Your task to perform on an android device: see tabs open on other devices in the chrome app Image 0: 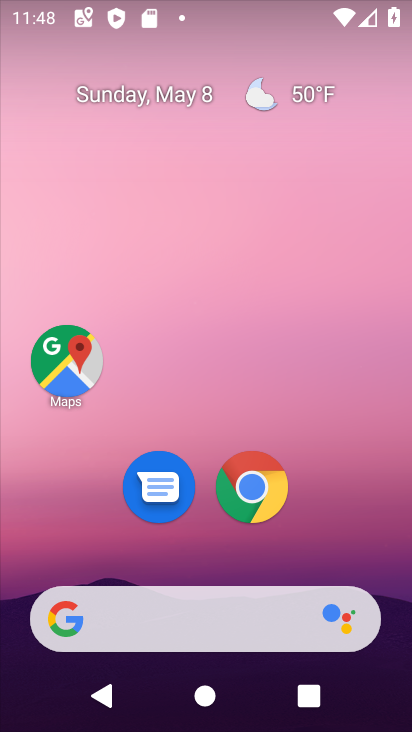
Step 0: click (263, 488)
Your task to perform on an android device: see tabs open on other devices in the chrome app Image 1: 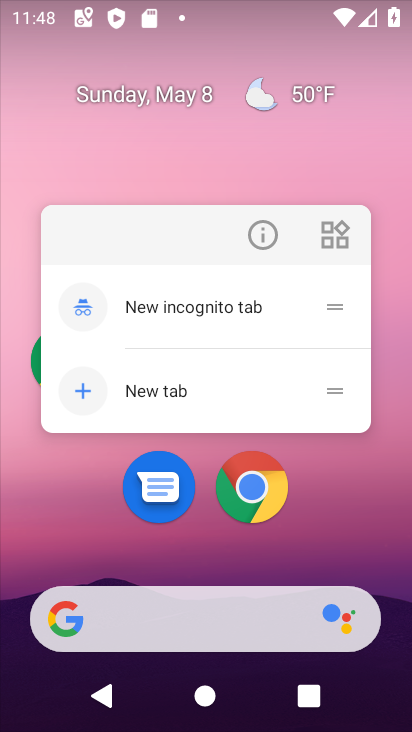
Step 1: click (271, 482)
Your task to perform on an android device: see tabs open on other devices in the chrome app Image 2: 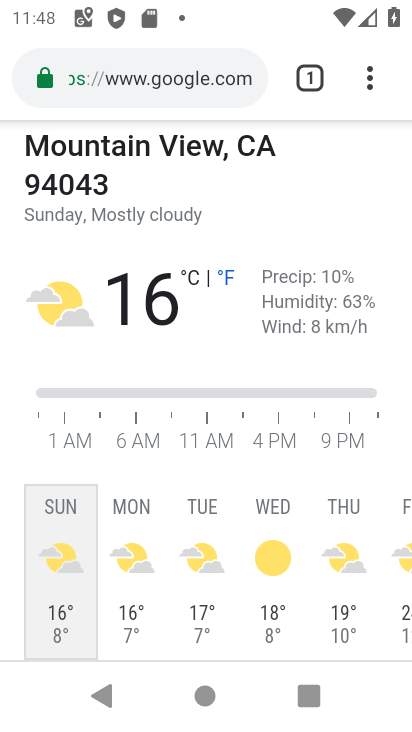
Step 2: task complete